Your task to perform on an android device: Go to display settings Image 0: 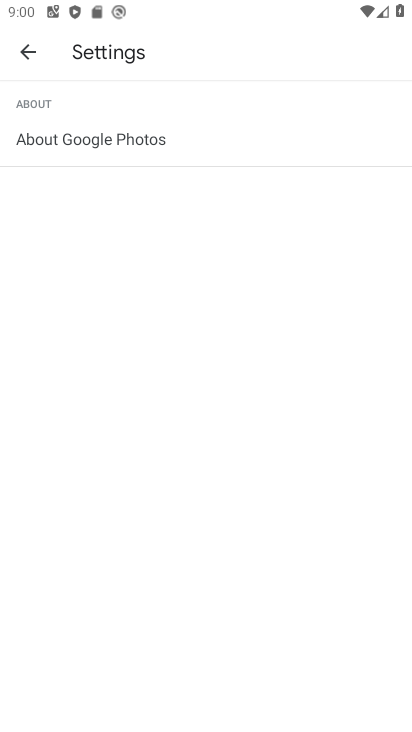
Step 0: press home button
Your task to perform on an android device: Go to display settings Image 1: 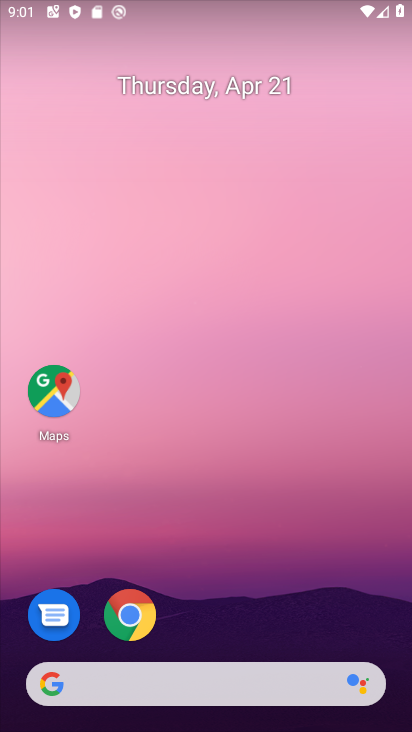
Step 1: drag from (206, 723) to (208, 128)
Your task to perform on an android device: Go to display settings Image 2: 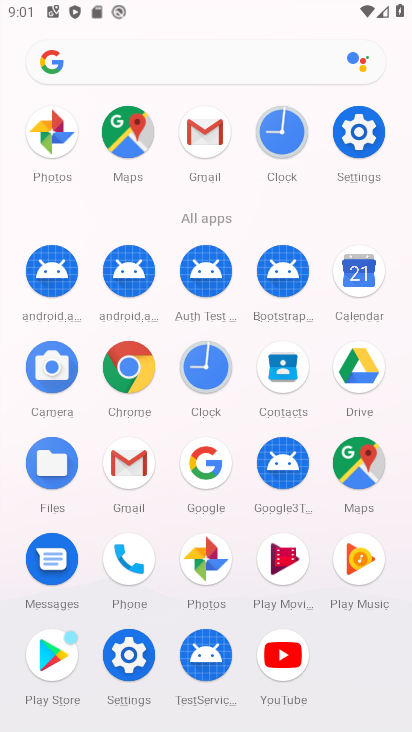
Step 2: click (361, 132)
Your task to perform on an android device: Go to display settings Image 3: 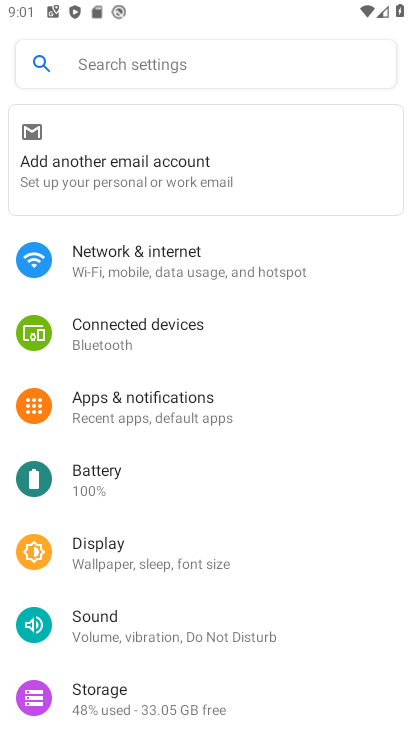
Step 3: click (87, 553)
Your task to perform on an android device: Go to display settings Image 4: 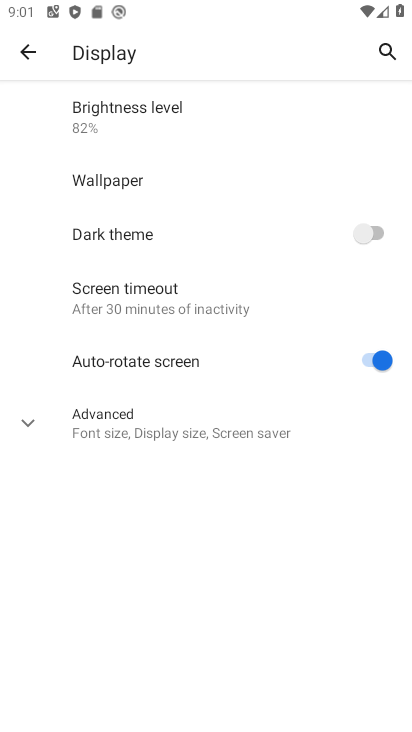
Step 4: task complete